Your task to perform on an android device: Go to battery settings Image 0: 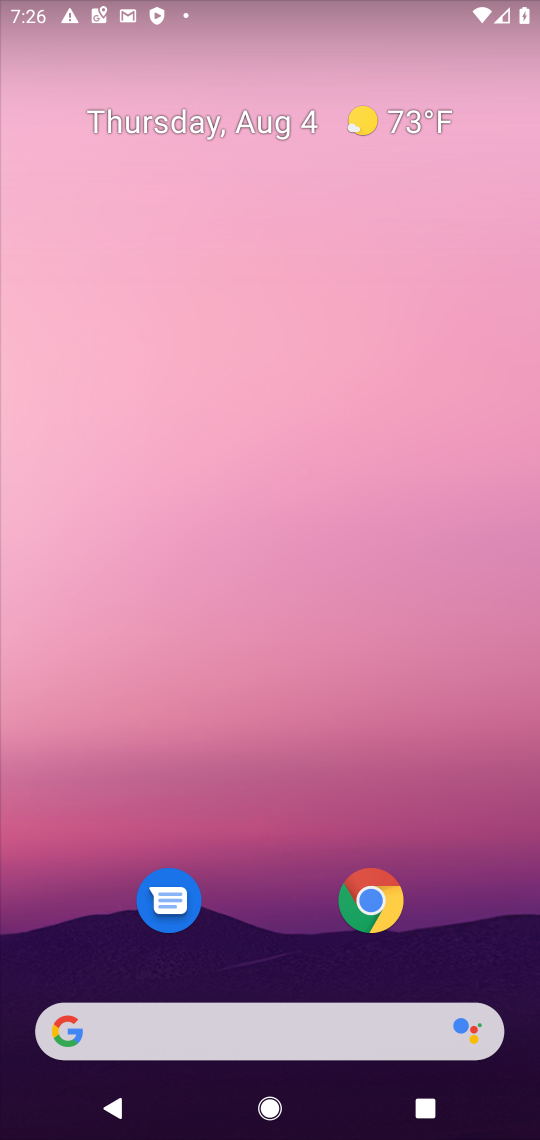
Step 0: drag from (206, 1047) to (184, 166)
Your task to perform on an android device: Go to battery settings Image 1: 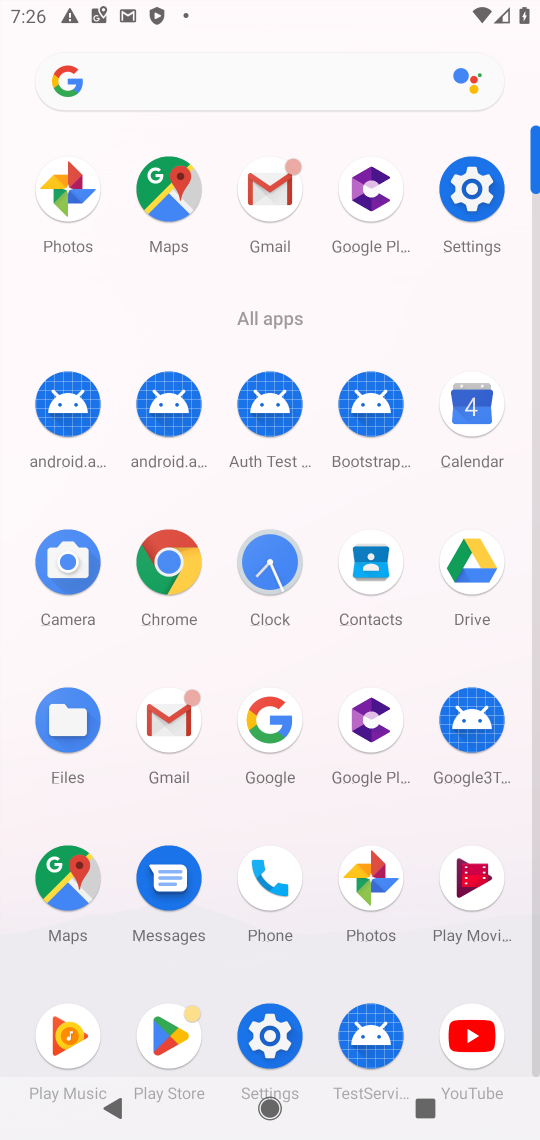
Step 1: click (465, 189)
Your task to perform on an android device: Go to battery settings Image 2: 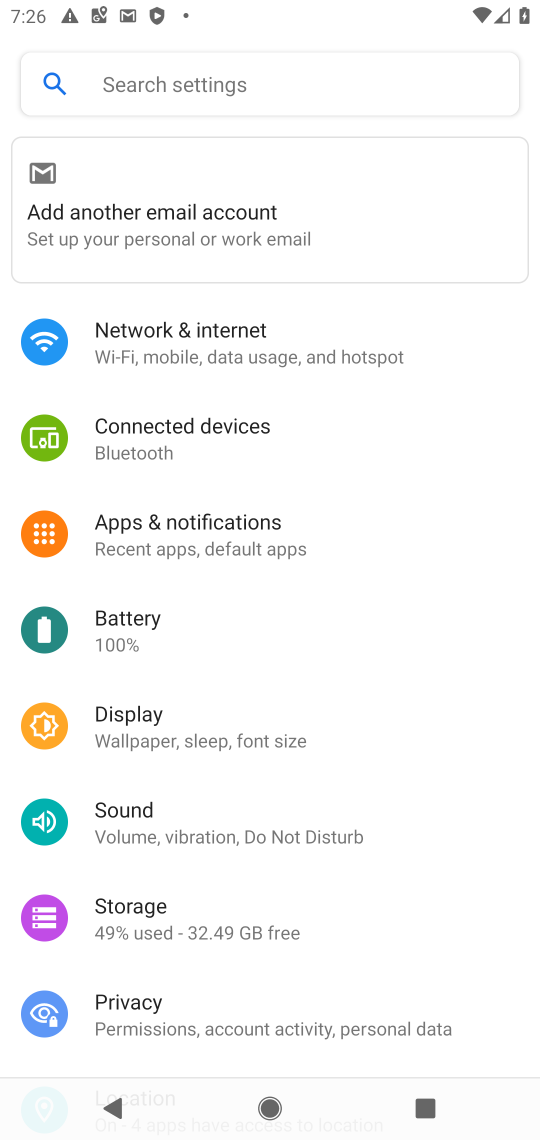
Step 2: click (123, 625)
Your task to perform on an android device: Go to battery settings Image 3: 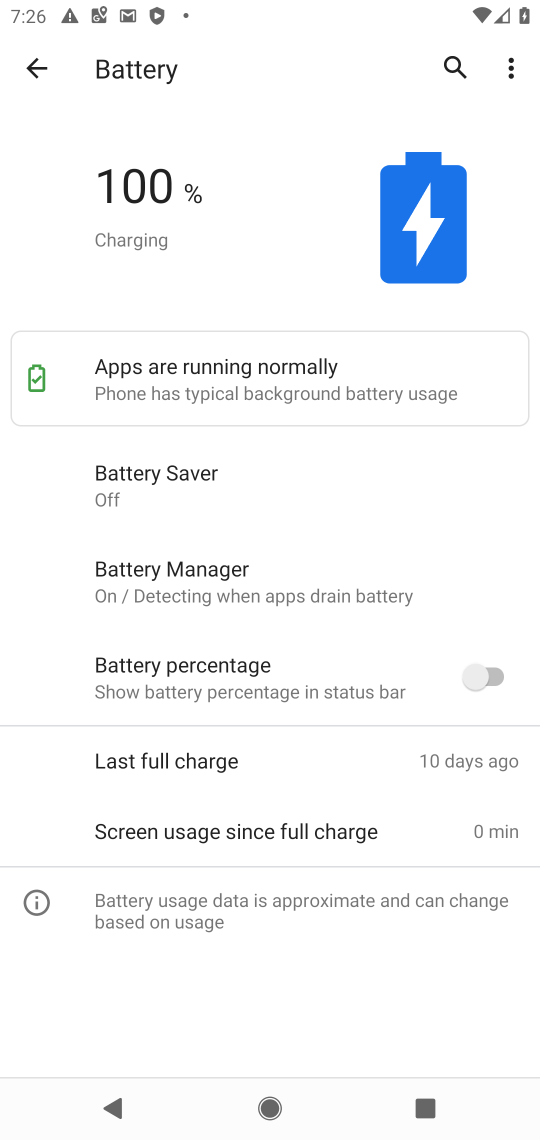
Step 3: task complete